Your task to perform on an android device: turn off airplane mode Image 0: 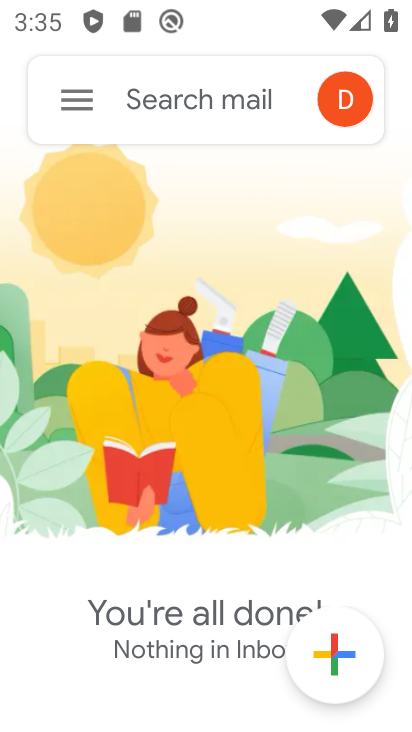
Step 0: press home button
Your task to perform on an android device: turn off airplane mode Image 1: 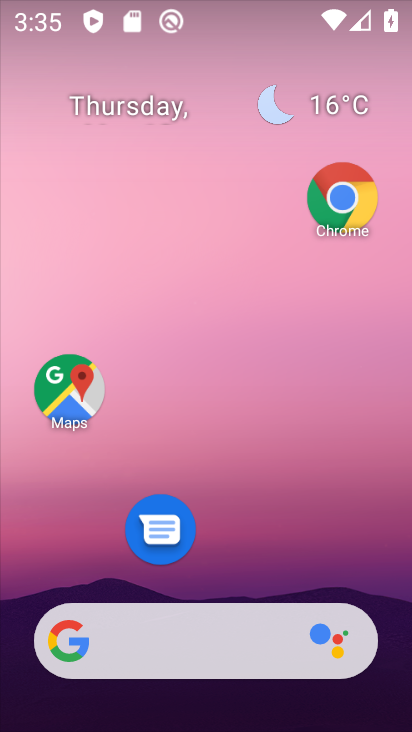
Step 1: drag from (224, 597) to (148, 0)
Your task to perform on an android device: turn off airplane mode Image 2: 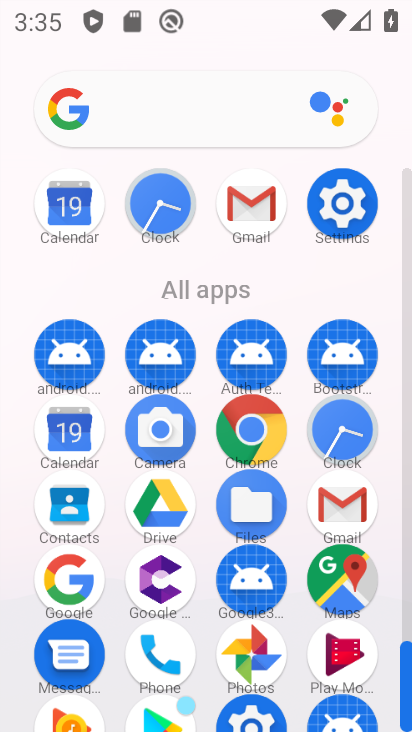
Step 2: click (335, 175)
Your task to perform on an android device: turn off airplane mode Image 3: 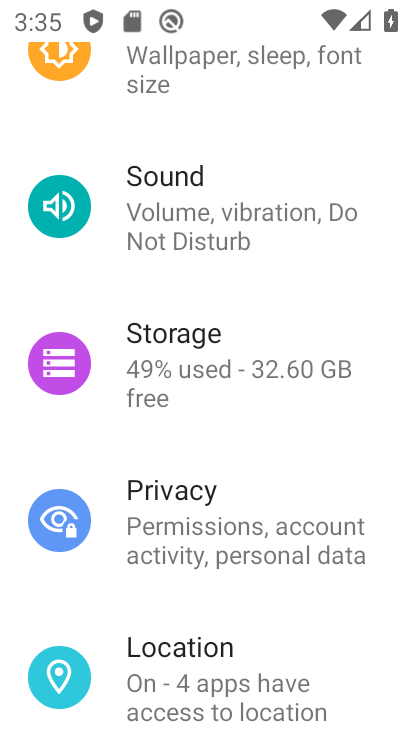
Step 3: drag from (274, 151) to (231, 558)
Your task to perform on an android device: turn off airplane mode Image 4: 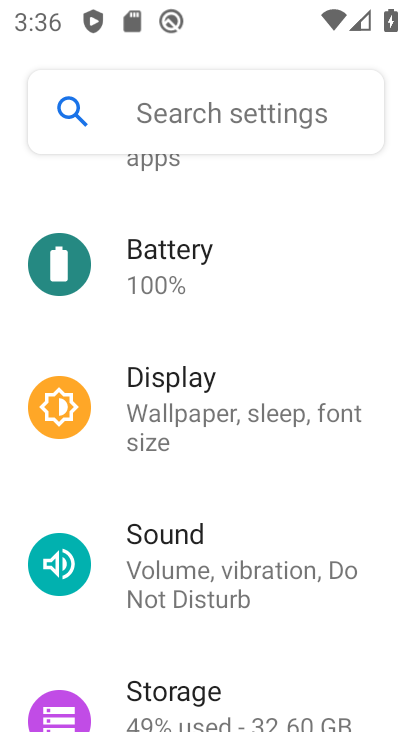
Step 4: drag from (232, 232) to (219, 663)
Your task to perform on an android device: turn off airplane mode Image 5: 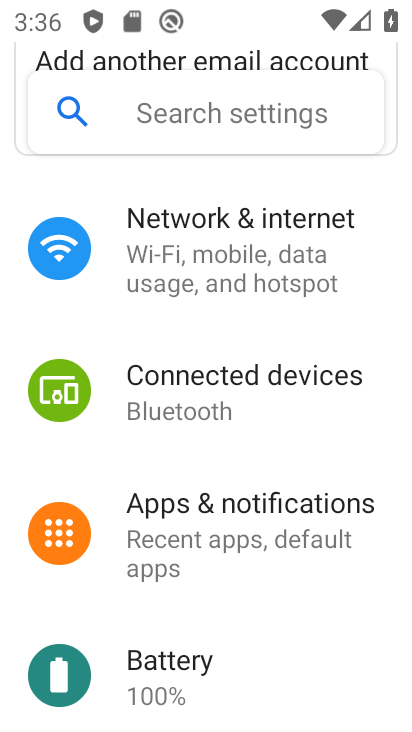
Step 5: click (167, 260)
Your task to perform on an android device: turn off airplane mode Image 6: 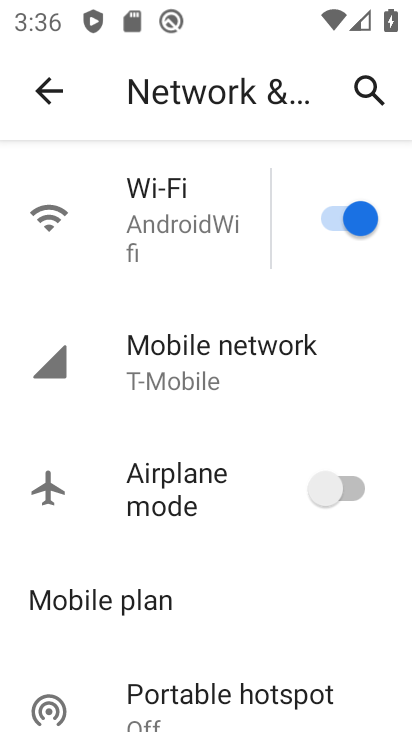
Step 6: task complete